Your task to perform on an android device: Show me the alarms in the clock app Image 0: 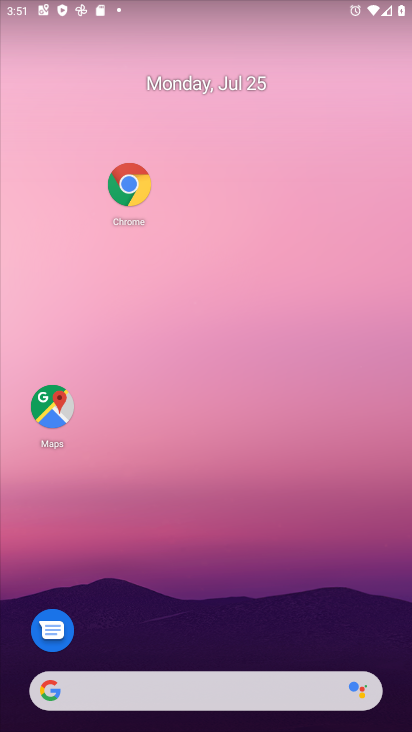
Step 0: drag from (265, 649) to (190, 44)
Your task to perform on an android device: Show me the alarms in the clock app Image 1: 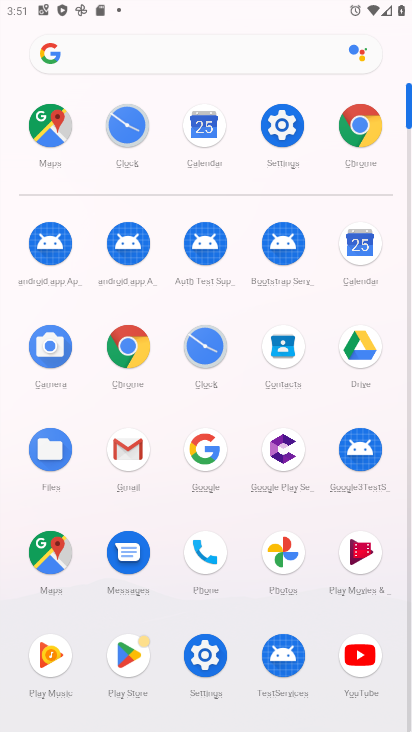
Step 1: click (187, 369)
Your task to perform on an android device: Show me the alarms in the clock app Image 2: 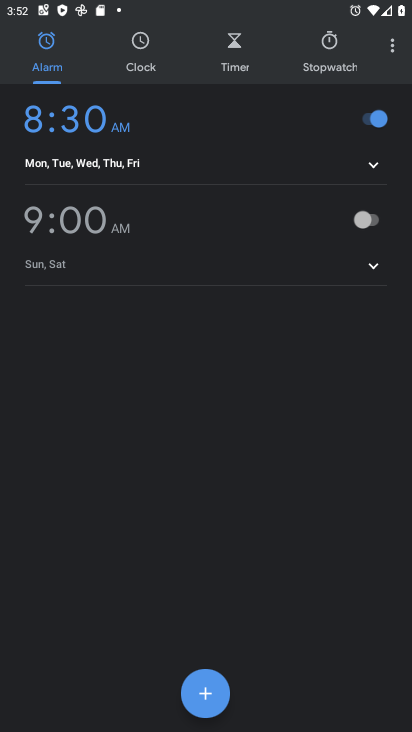
Step 2: task complete